Your task to perform on an android device: Open the calendar app, open the side menu, and click the "Day" option Image 0: 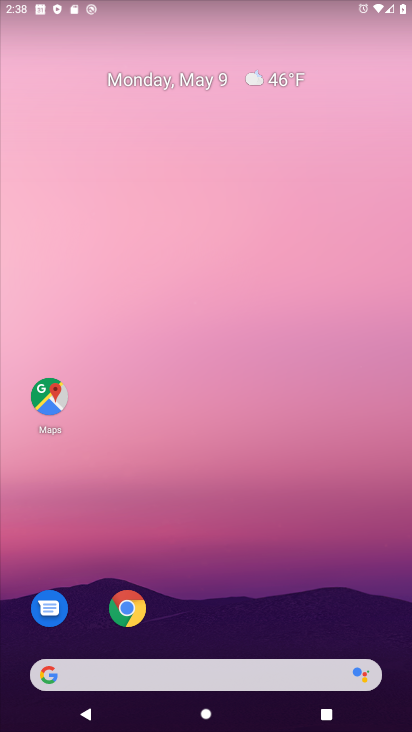
Step 0: drag from (203, 634) to (220, 298)
Your task to perform on an android device: Open the calendar app, open the side menu, and click the "Day" option Image 1: 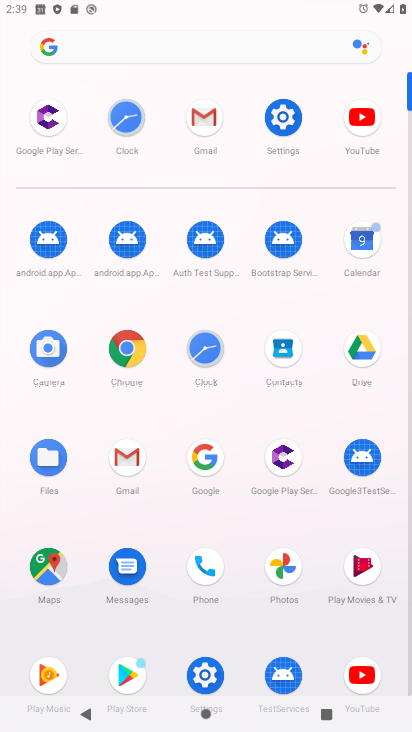
Step 1: click (365, 246)
Your task to perform on an android device: Open the calendar app, open the side menu, and click the "Day" option Image 2: 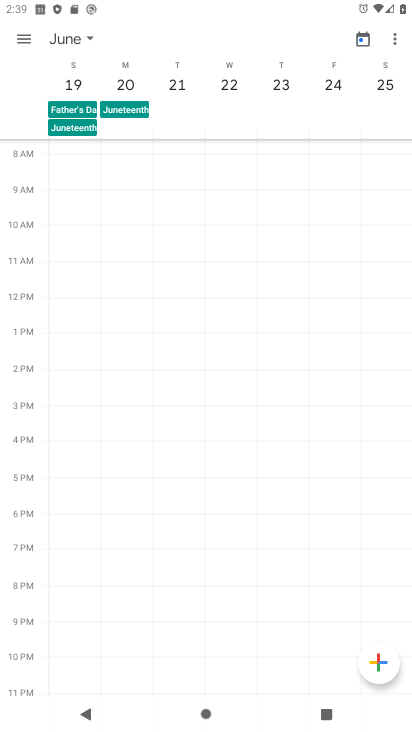
Step 2: click (17, 41)
Your task to perform on an android device: Open the calendar app, open the side menu, and click the "Day" option Image 3: 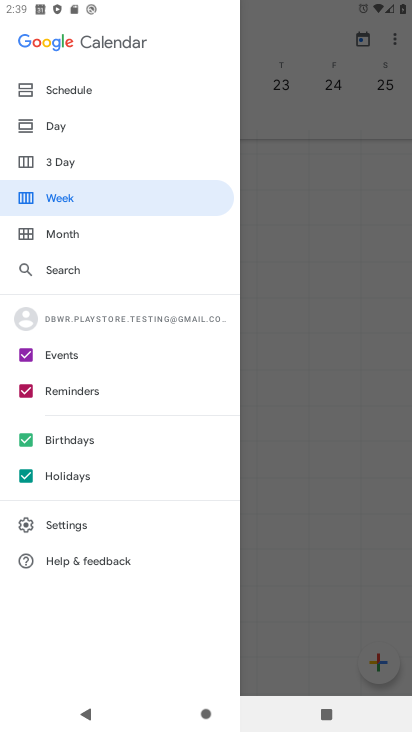
Step 3: click (81, 133)
Your task to perform on an android device: Open the calendar app, open the side menu, and click the "Day" option Image 4: 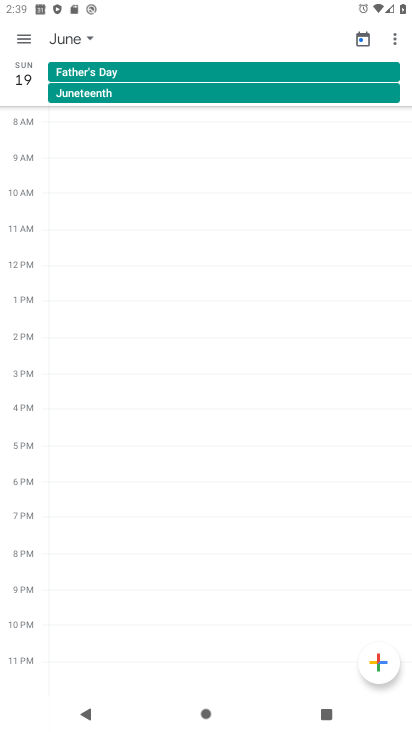
Step 4: task complete